Your task to perform on an android device: Search for bose soundlink on costco.com, select the first entry, add it to the cart, then select checkout. Image 0: 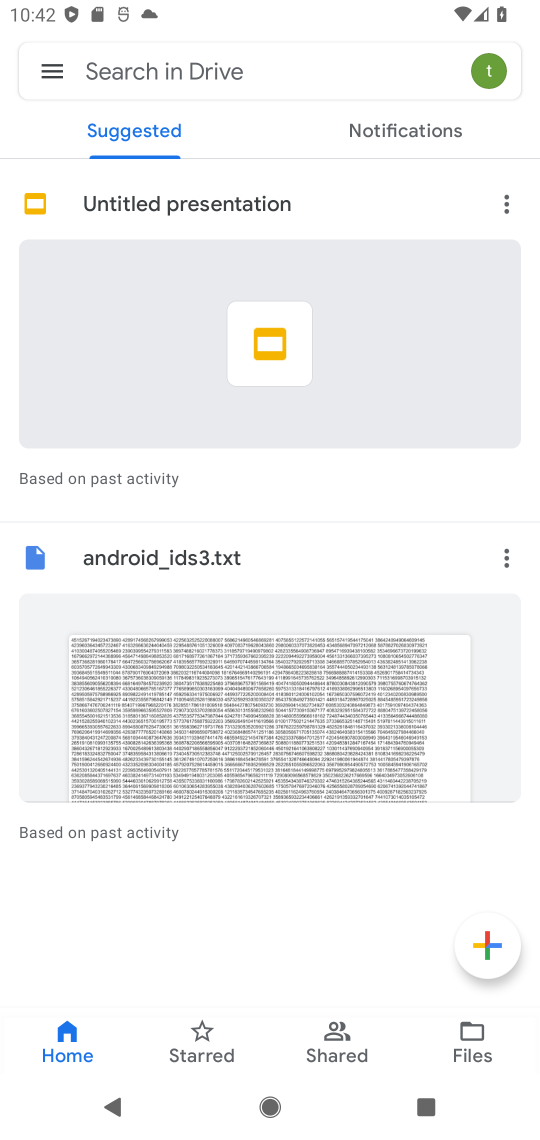
Step 0: press home button
Your task to perform on an android device: Search for bose soundlink on costco.com, select the first entry, add it to the cart, then select checkout. Image 1: 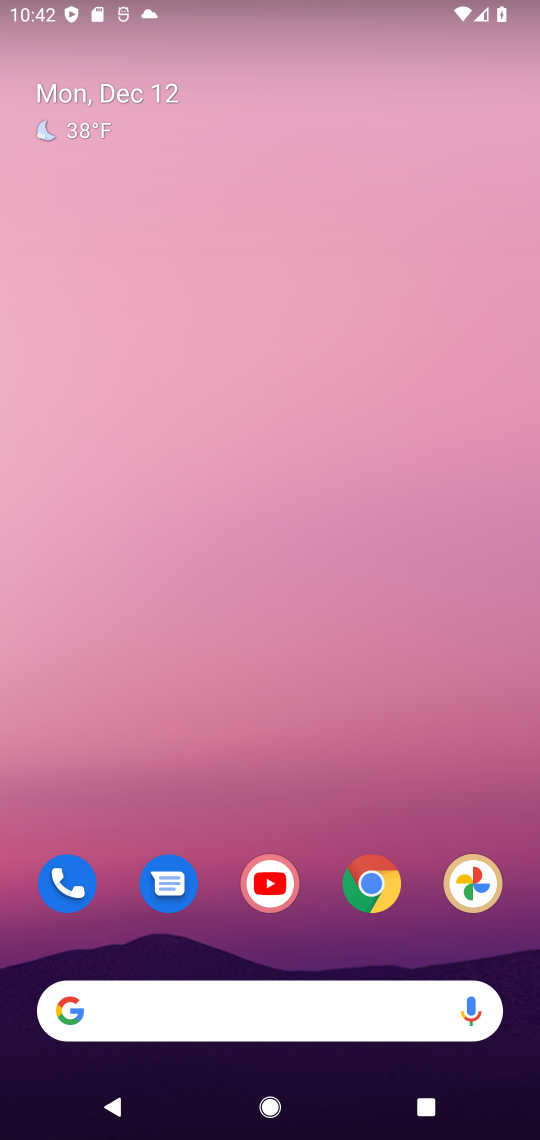
Step 1: drag from (209, 883) to (214, 329)
Your task to perform on an android device: Search for bose soundlink on costco.com, select the first entry, add it to the cart, then select checkout. Image 2: 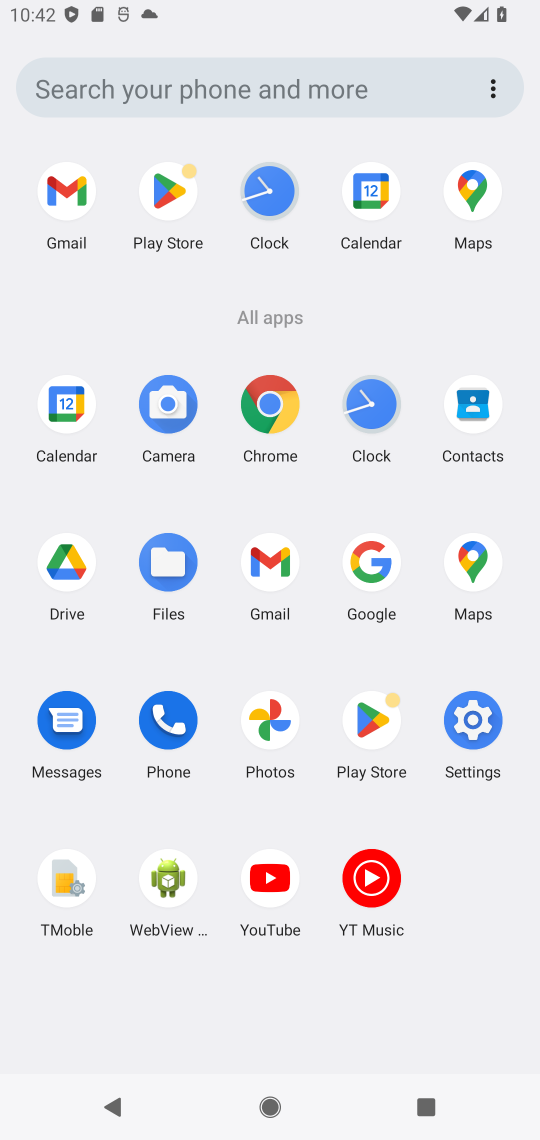
Step 2: click (363, 564)
Your task to perform on an android device: Search for bose soundlink on costco.com, select the first entry, add it to the cart, then select checkout. Image 3: 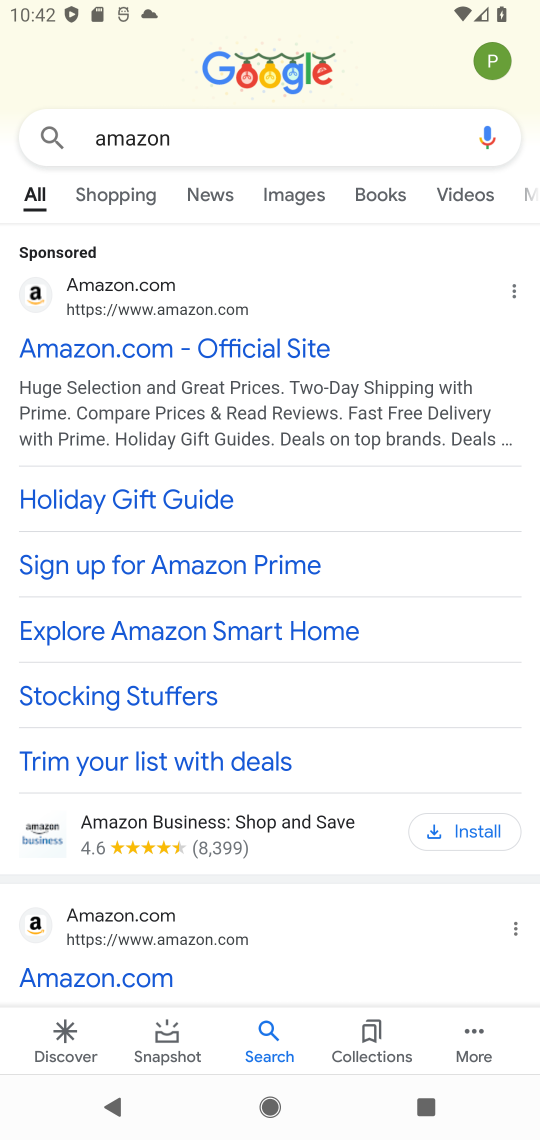
Step 3: click (370, 149)
Your task to perform on an android device: Search for bose soundlink on costco.com, select the first entry, add it to the cart, then select checkout. Image 4: 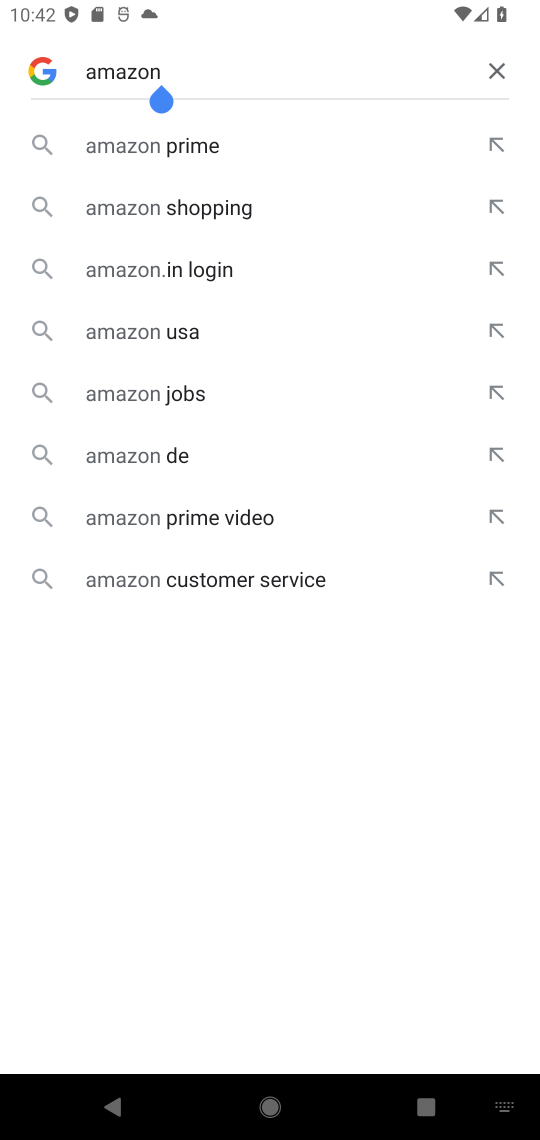
Step 4: click (492, 74)
Your task to perform on an android device: Search for bose soundlink on costco.com, select the first entry, add it to the cart, then select checkout. Image 5: 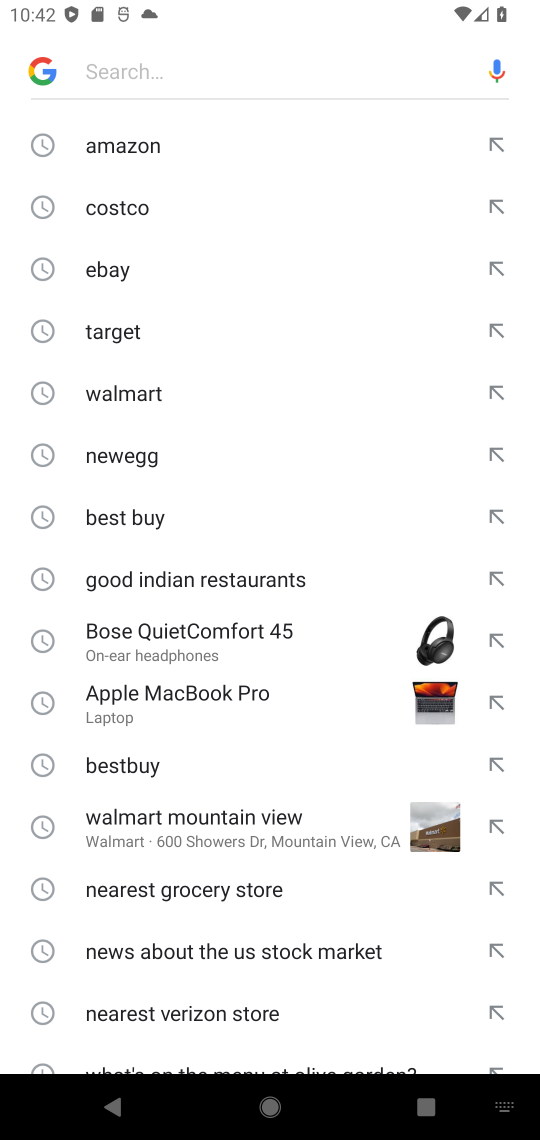
Step 5: type "costco.com"
Your task to perform on an android device: Search for bose soundlink on costco.com, select the first entry, add it to the cart, then select checkout. Image 6: 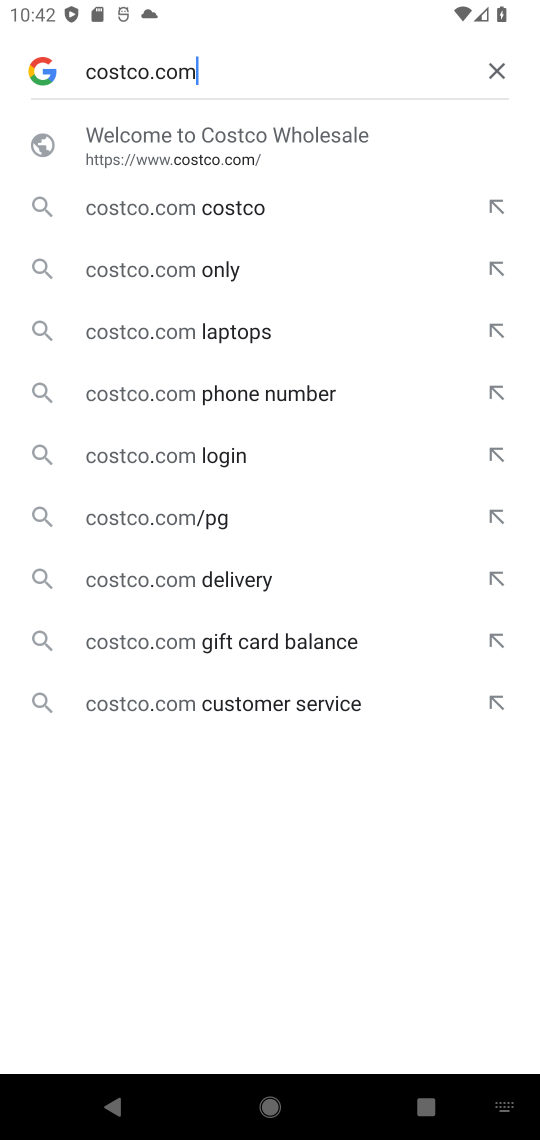
Step 6: click (191, 152)
Your task to perform on an android device: Search for bose soundlink on costco.com, select the first entry, add it to the cart, then select checkout. Image 7: 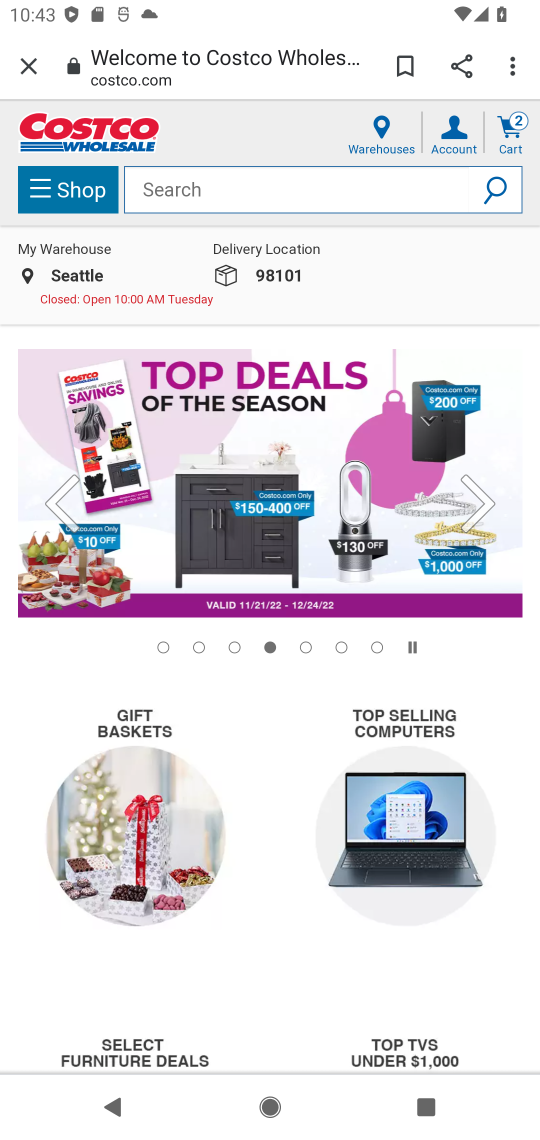
Step 7: click (227, 175)
Your task to perform on an android device: Search for bose soundlink on costco.com, select the first entry, add it to the cart, then select checkout. Image 8: 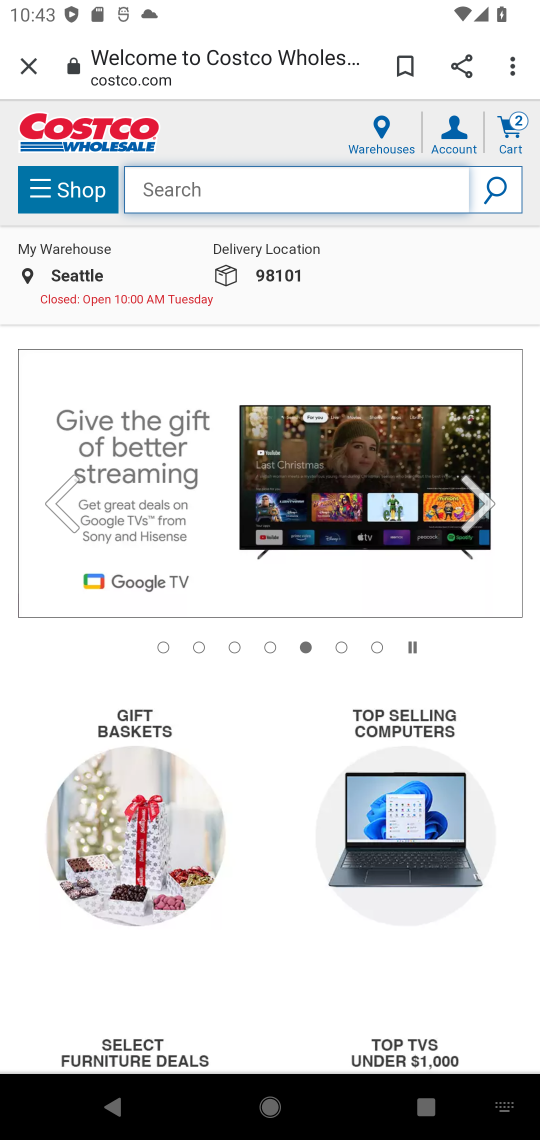
Step 8: type " bose soundlink "
Your task to perform on an android device: Search for bose soundlink on costco.com, select the first entry, add it to the cart, then select checkout. Image 9: 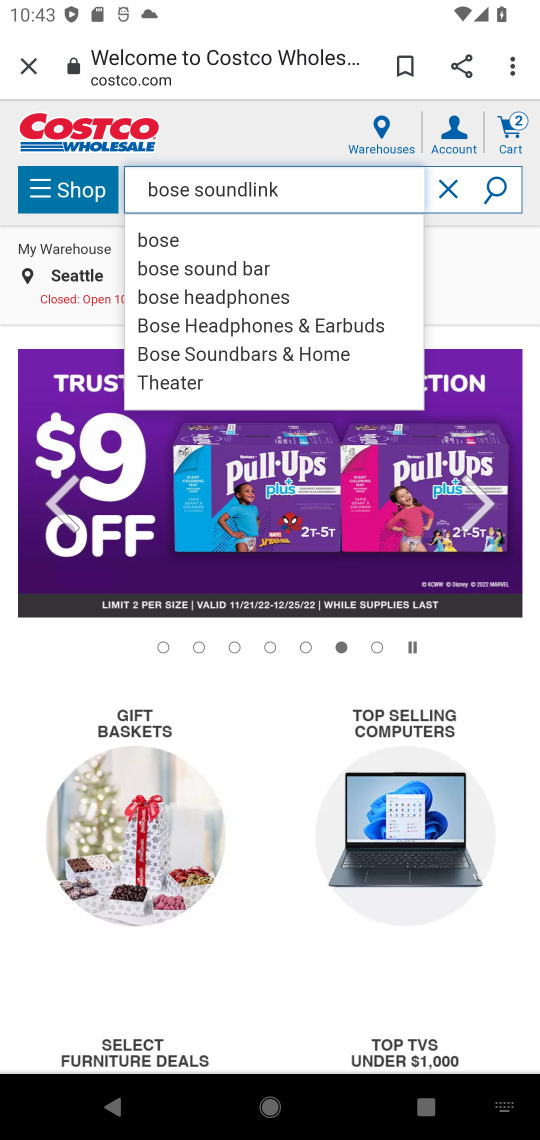
Step 9: click (498, 183)
Your task to perform on an android device: Search for bose soundlink on costco.com, select the first entry, add it to the cart, then select checkout. Image 10: 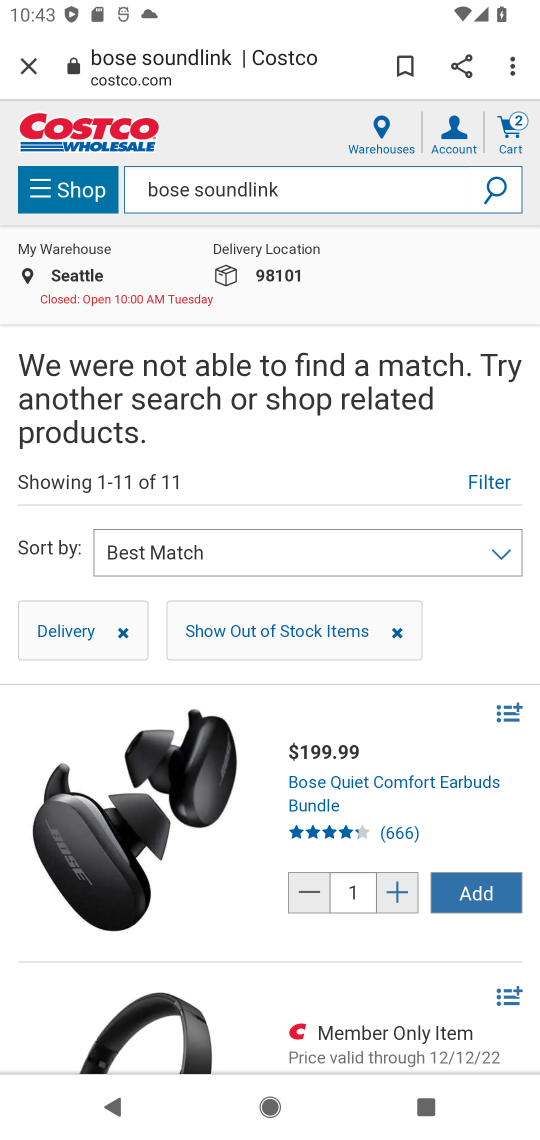
Step 10: click (458, 895)
Your task to perform on an android device: Search for bose soundlink on costco.com, select the first entry, add it to the cart, then select checkout. Image 11: 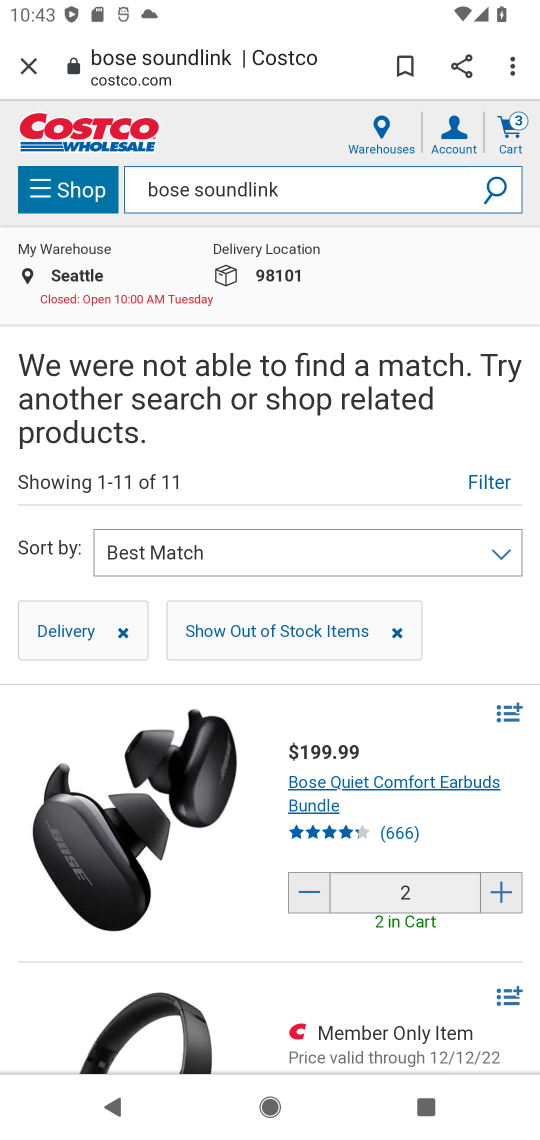
Step 11: click (509, 127)
Your task to perform on an android device: Search for bose soundlink on costco.com, select the first entry, add it to the cart, then select checkout. Image 12: 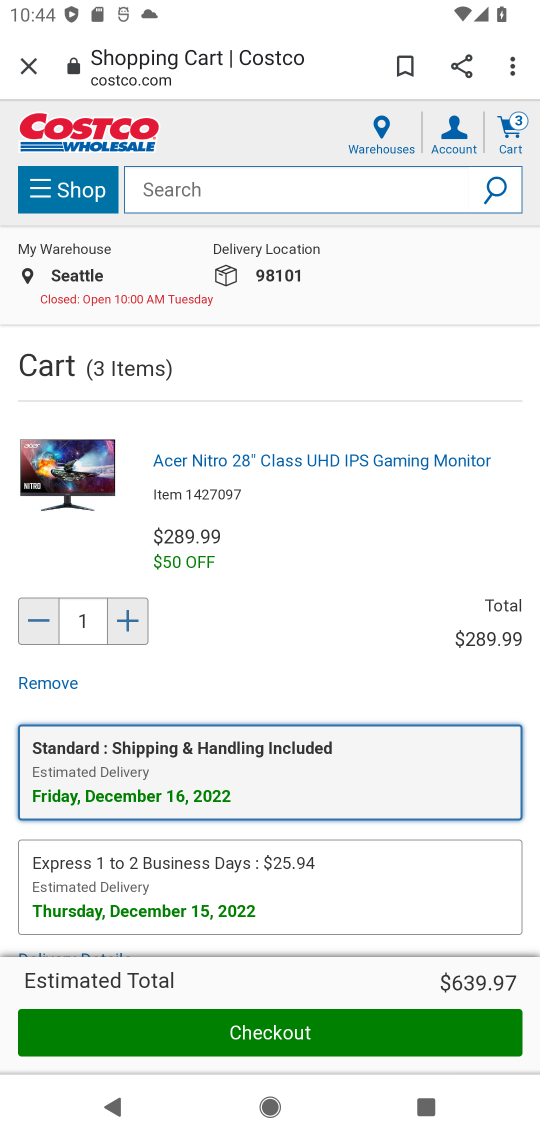
Step 12: click (271, 1049)
Your task to perform on an android device: Search for bose soundlink on costco.com, select the first entry, add it to the cart, then select checkout. Image 13: 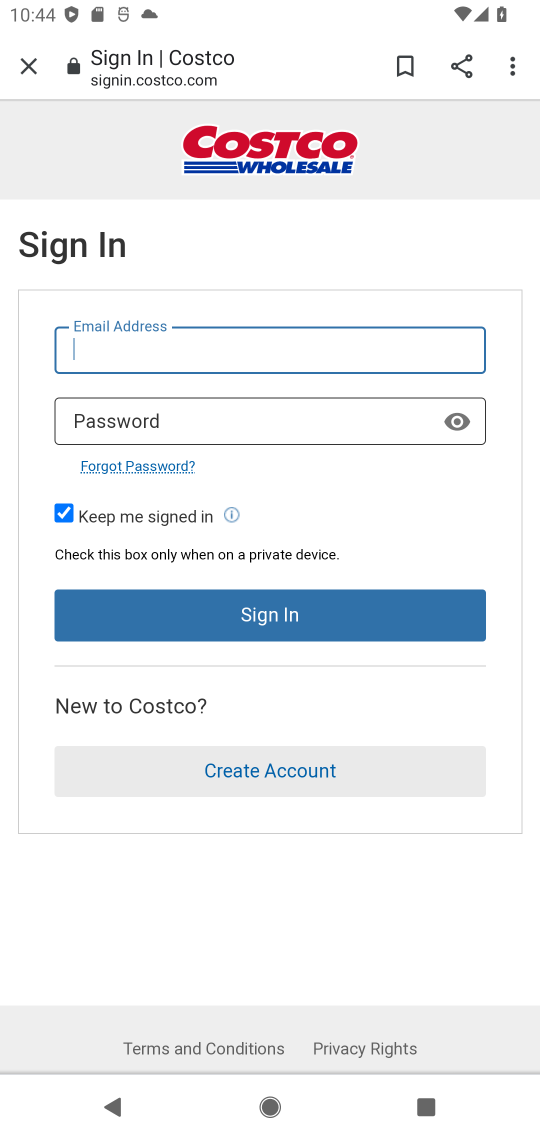
Step 13: task complete